Your task to perform on an android device: remove spam from my inbox in the gmail app Image 0: 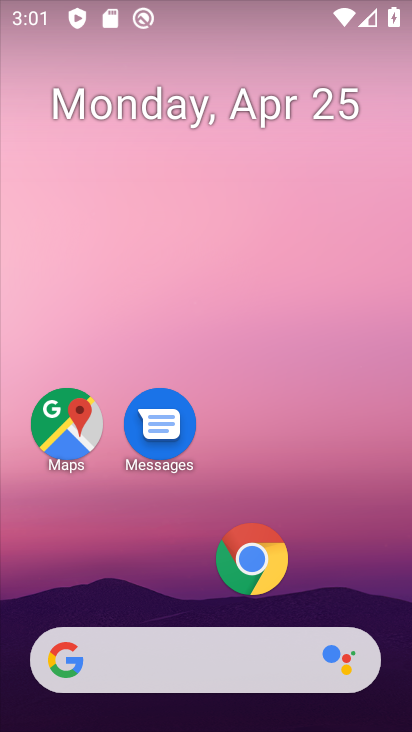
Step 0: drag from (210, 428) to (241, 92)
Your task to perform on an android device: remove spam from my inbox in the gmail app Image 1: 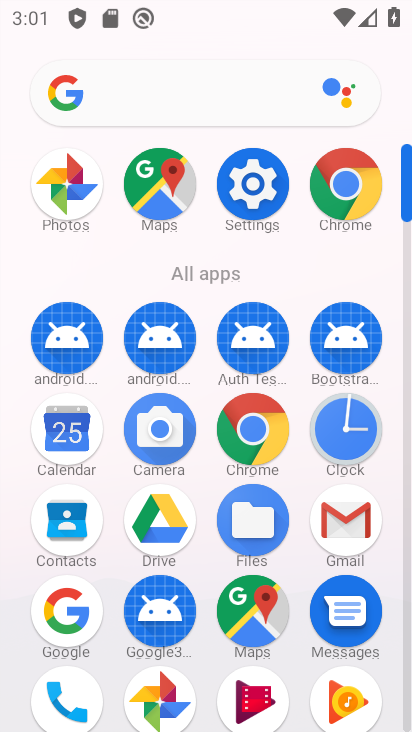
Step 1: click (350, 512)
Your task to perform on an android device: remove spam from my inbox in the gmail app Image 2: 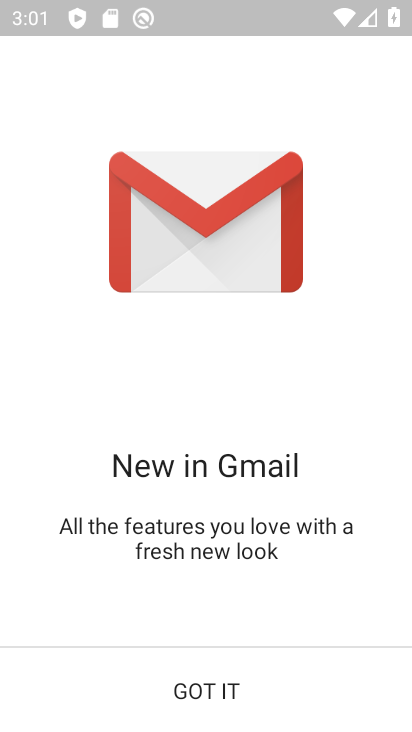
Step 2: click (219, 705)
Your task to perform on an android device: remove spam from my inbox in the gmail app Image 3: 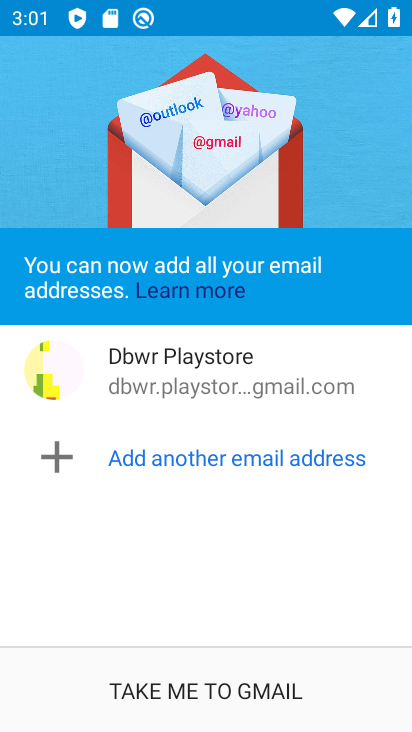
Step 3: click (219, 705)
Your task to perform on an android device: remove spam from my inbox in the gmail app Image 4: 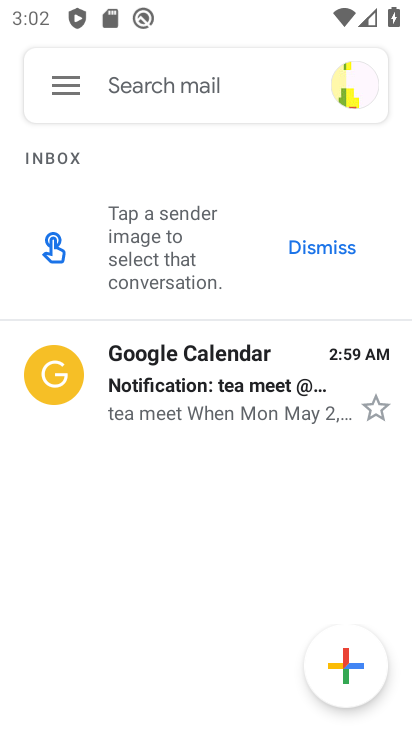
Step 4: click (59, 85)
Your task to perform on an android device: remove spam from my inbox in the gmail app Image 5: 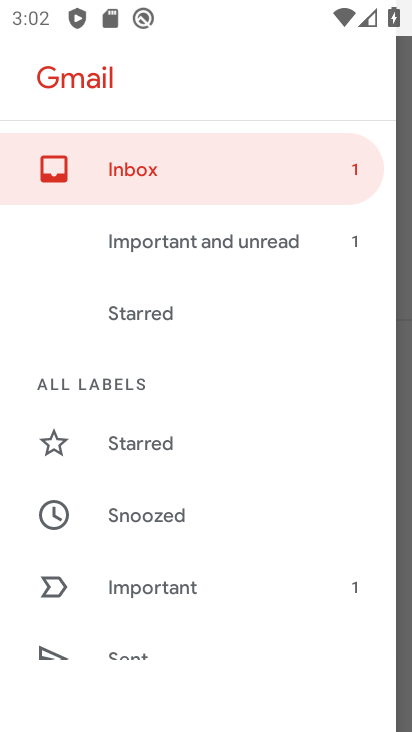
Step 5: drag from (113, 596) to (187, 258)
Your task to perform on an android device: remove spam from my inbox in the gmail app Image 6: 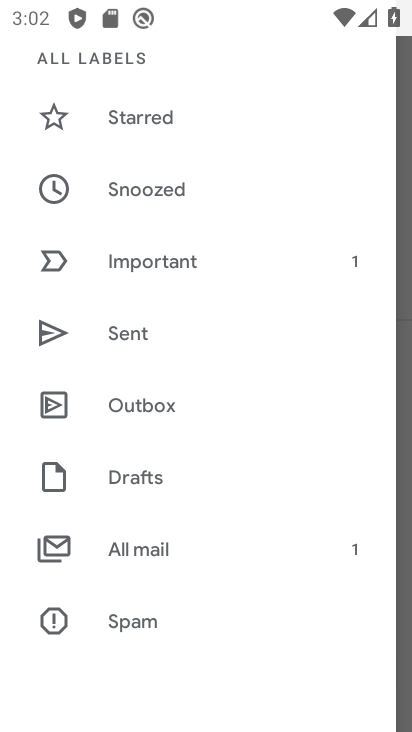
Step 6: click (132, 618)
Your task to perform on an android device: remove spam from my inbox in the gmail app Image 7: 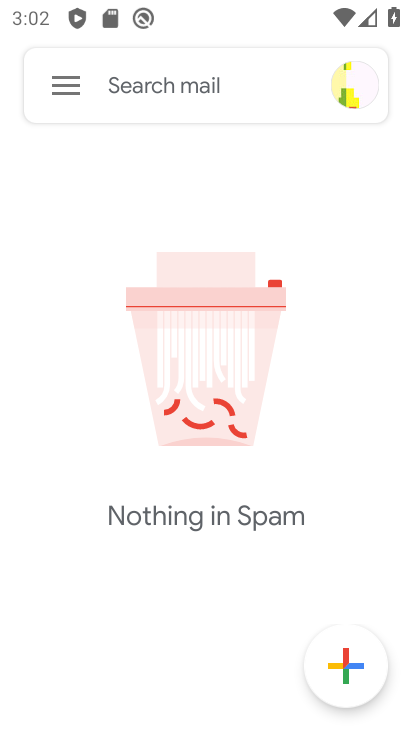
Step 7: task complete